Your task to perform on an android device: clear all cookies in the chrome app Image 0: 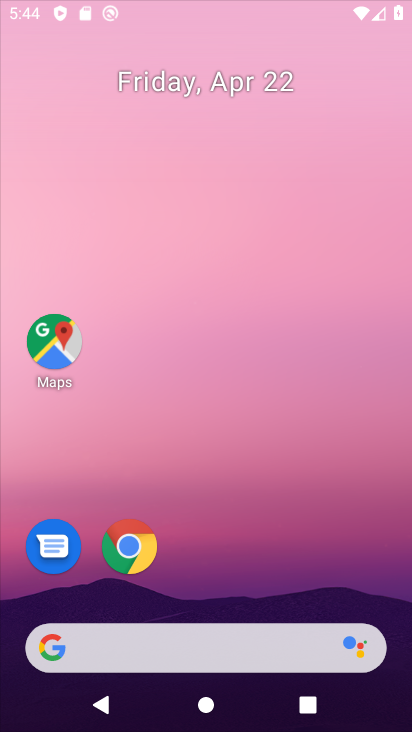
Step 0: drag from (260, 577) to (188, 210)
Your task to perform on an android device: clear all cookies in the chrome app Image 1: 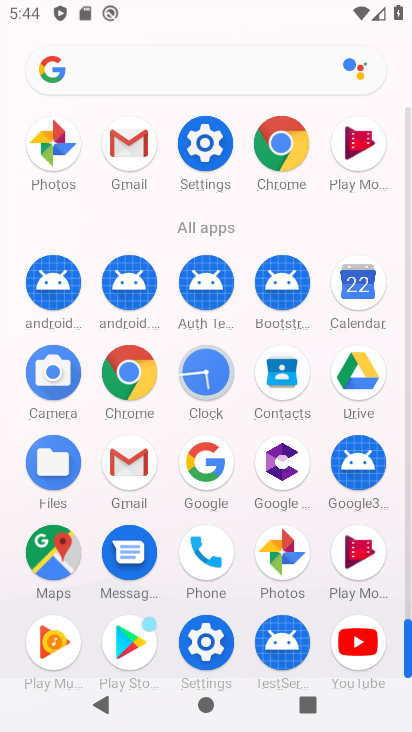
Step 1: click (262, 171)
Your task to perform on an android device: clear all cookies in the chrome app Image 2: 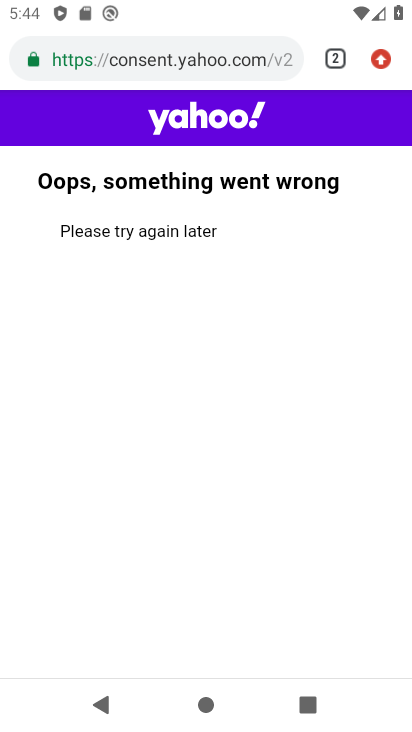
Step 2: click (381, 66)
Your task to perform on an android device: clear all cookies in the chrome app Image 3: 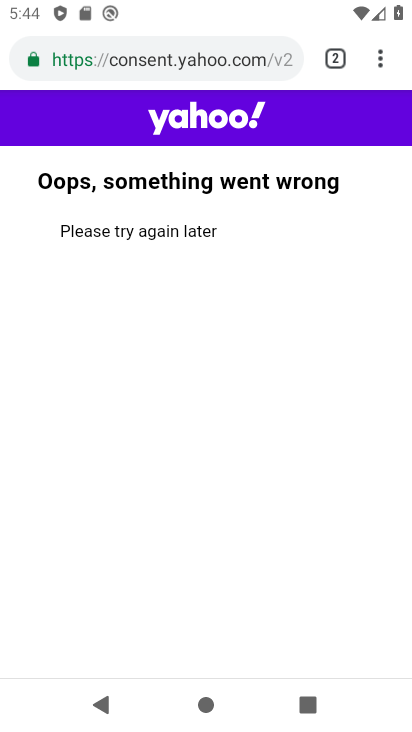
Step 3: click (381, 66)
Your task to perform on an android device: clear all cookies in the chrome app Image 4: 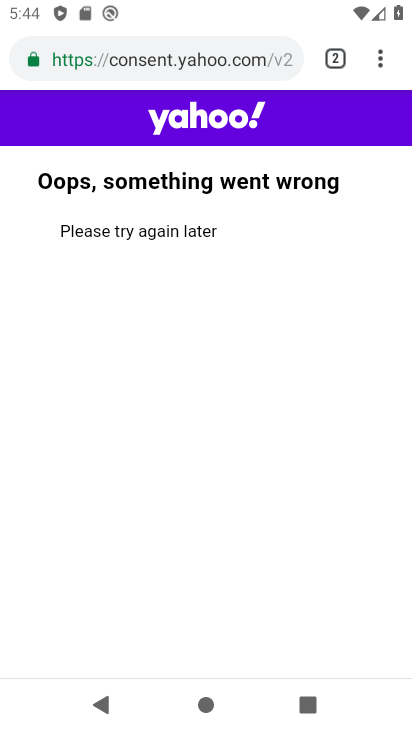
Step 4: click (384, 60)
Your task to perform on an android device: clear all cookies in the chrome app Image 5: 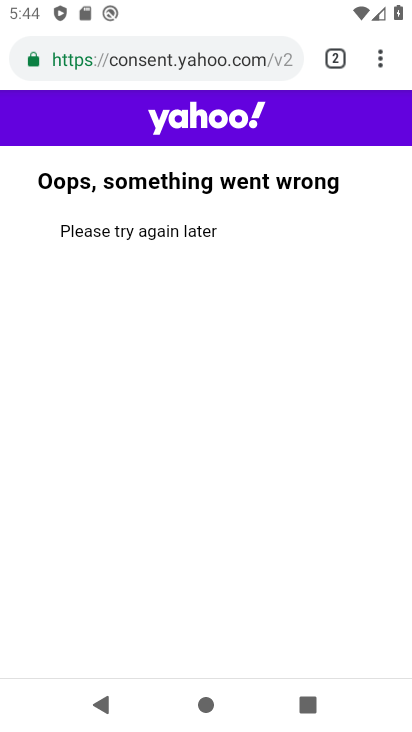
Step 5: click (382, 63)
Your task to perform on an android device: clear all cookies in the chrome app Image 6: 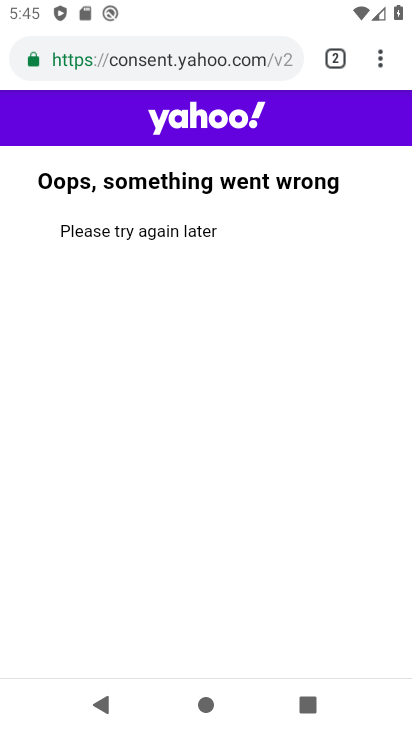
Step 6: click (382, 63)
Your task to perform on an android device: clear all cookies in the chrome app Image 7: 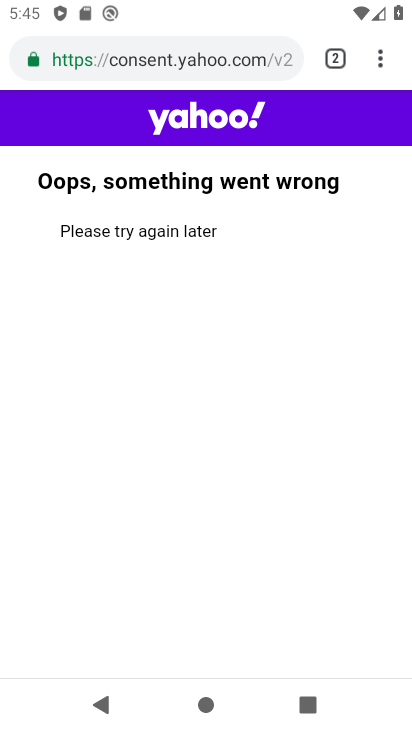
Step 7: click (378, 55)
Your task to perform on an android device: clear all cookies in the chrome app Image 8: 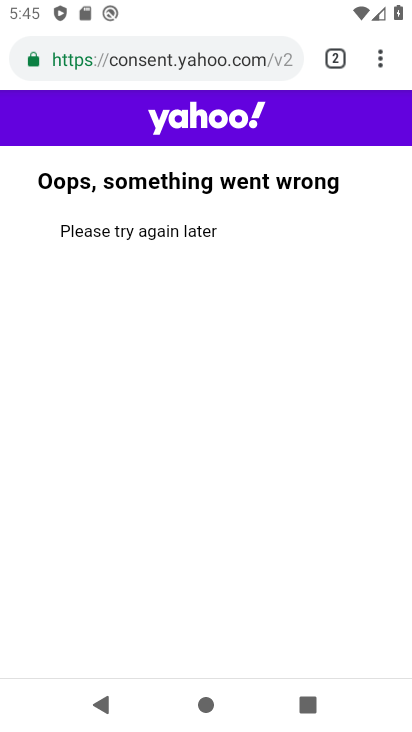
Step 8: click (380, 60)
Your task to perform on an android device: clear all cookies in the chrome app Image 9: 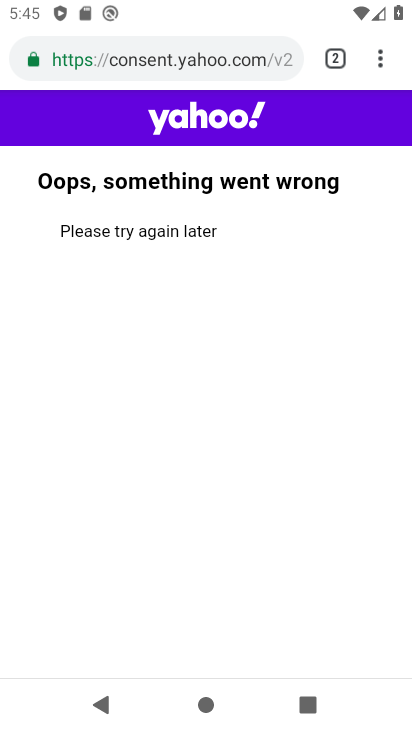
Step 9: click (381, 67)
Your task to perform on an android device: clear all cookies in the chrome app Image 10: 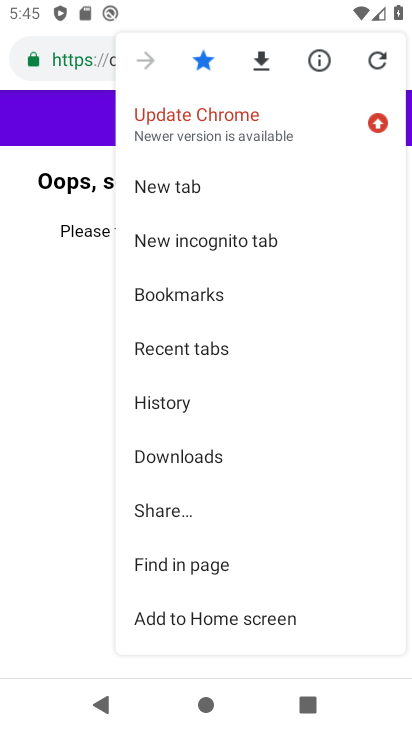
Step 10: click (178, 398)
Your task to perform on an android device: clear all cookies in the chrome app Image 11: 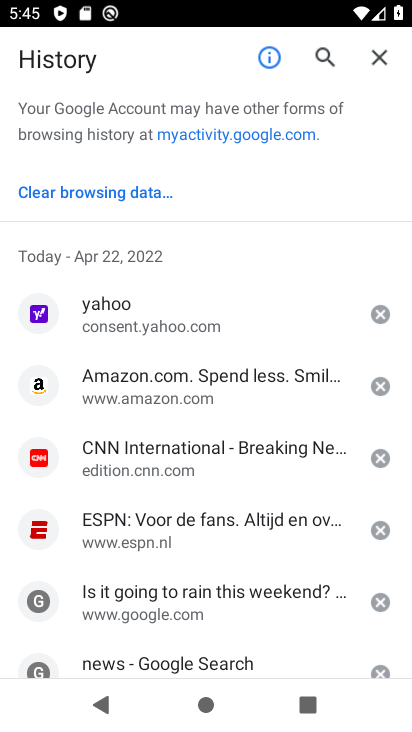
Step 11: click (93, 198)
Your task to perform on an android device: clear all cookies in the chrome app Image 12: 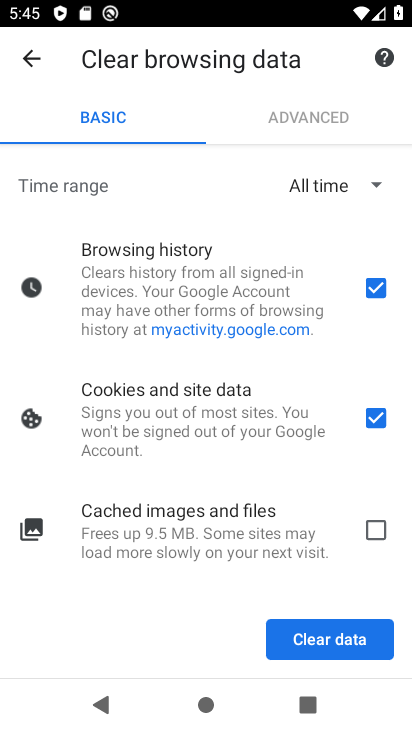
Step 12: click (385, 288)
Your task to perform on an android device: clear all cookies in the chrome app Image 13: 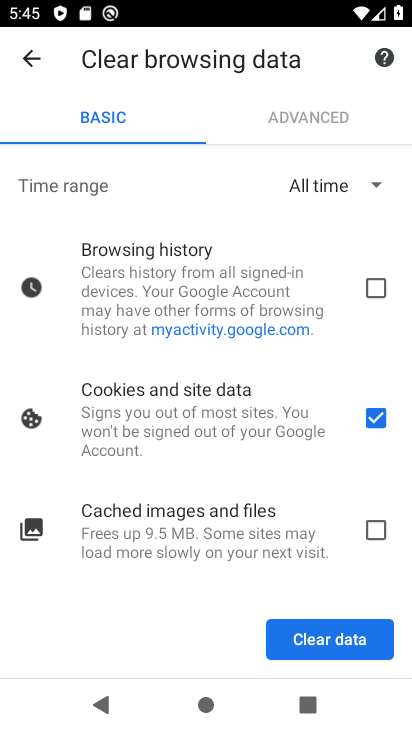
Step 13: click (321, 645)
Your task to perform on an android device: clear all cookies in the chrome app Image 14: 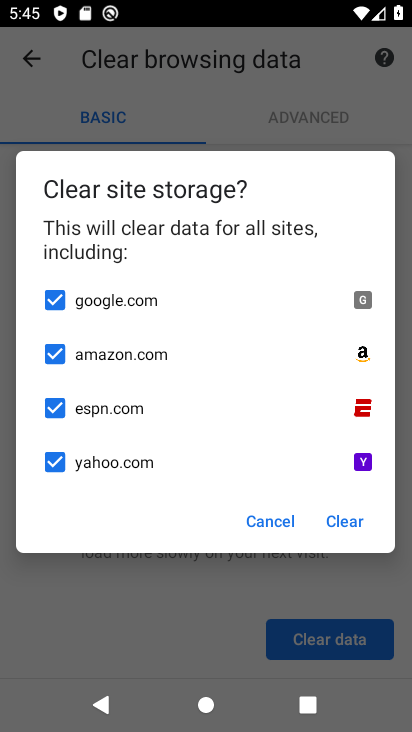
Step 14: click (332, 520)
Your task to perform on an android device: clear all cookies in the chrome app Image 15: 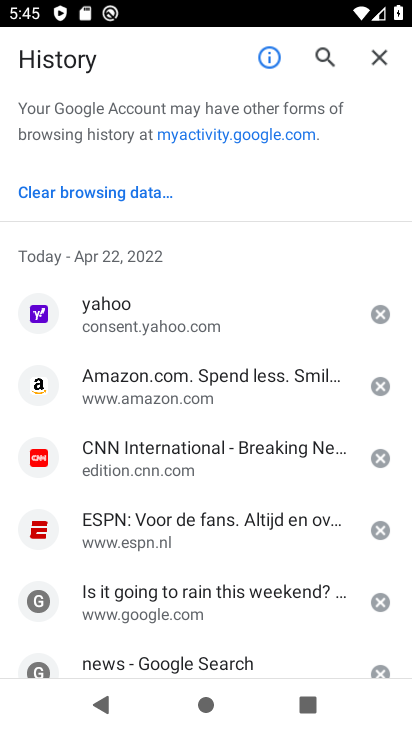
Step 15: task complete